Your task to perform on an android device: open chrome privacy settings Image 0: 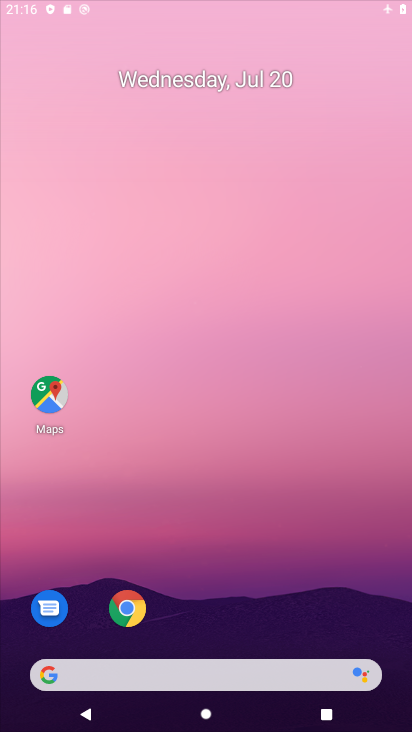
Step 0: drag from (229, 311) to (229, 114)
Your task to perform on an android device: open chrome privacy settings Image 1: 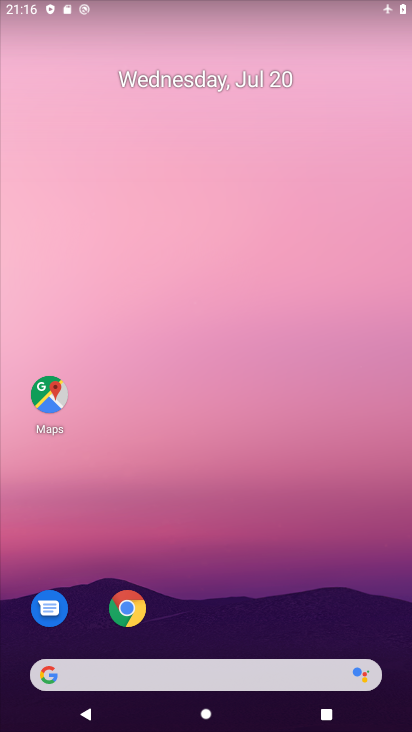
Step 1: drag from (197, 628) to (169, 228)
Your task to perform on an android device: open chrome privacy settings Image 2: 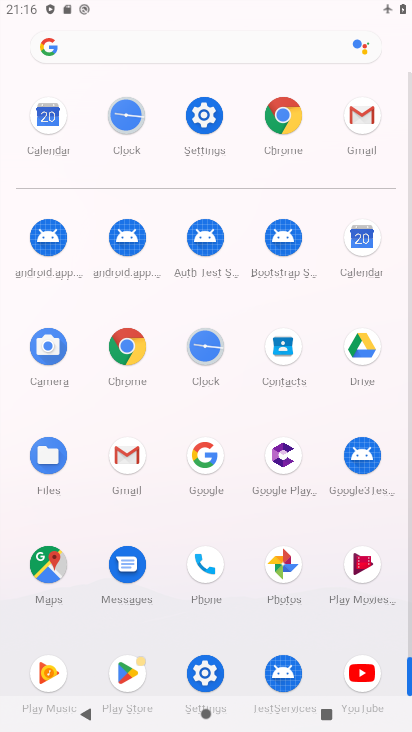
Step 2: click (205, 118)
Your task to perform on an android device: open chrome privacy settings Image 3: 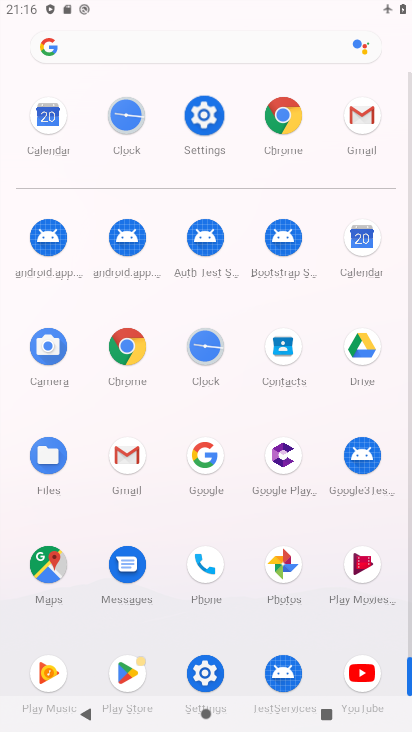
Step 3: click (205, 118)
Your task to perform on an android device: open chrome privacy settings Image 4: 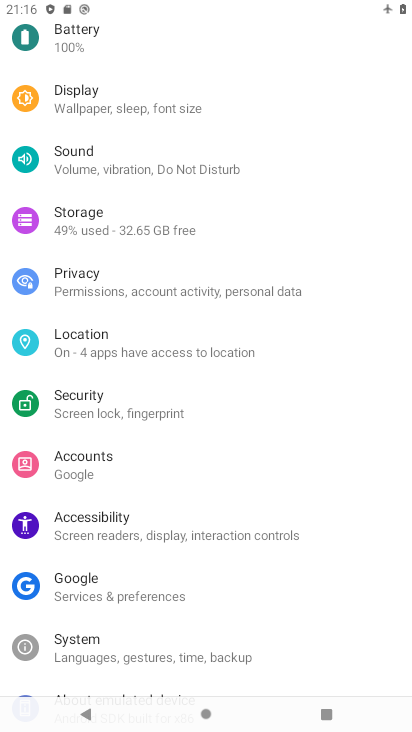
Step 4: click (83, 281)
Your task to perform on an android device: open chrome privacy settings Image 5: 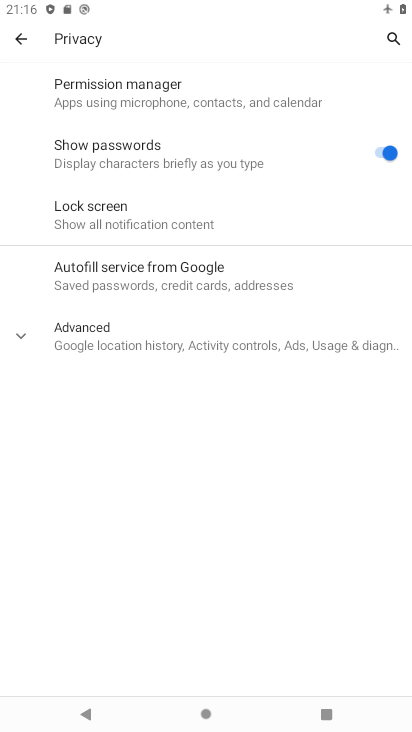
Step 5: click (27, 48)
Your task to perform on an android device: open chrome privacy settings Image 6: 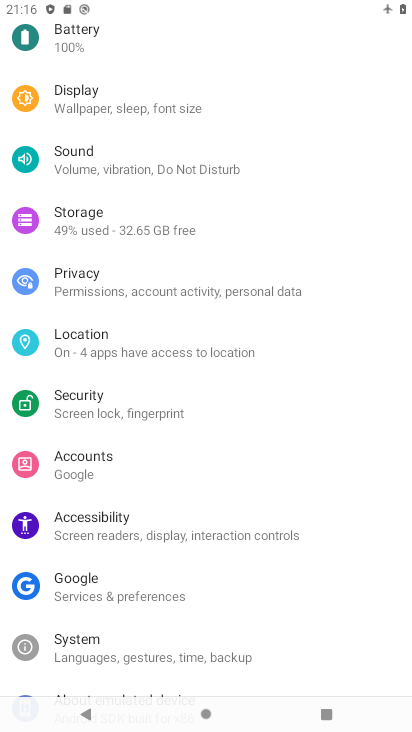
Step 6: press back button
Your task to perform on an android device: open chrome privacy settings Image 7: 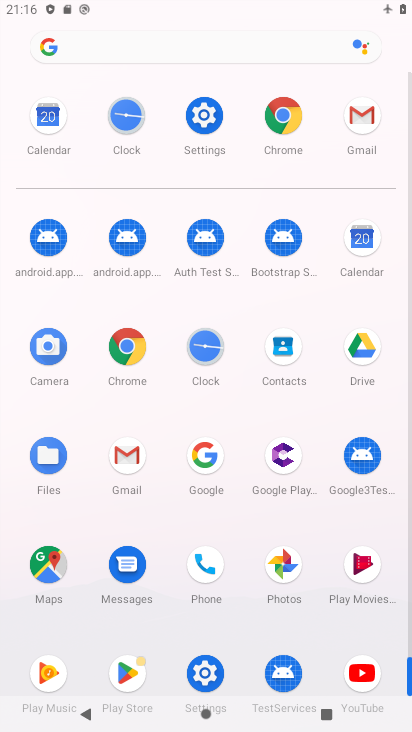
Step 7: click (281, 127)
Your task to perform on an android device: open chrome privacy settings Image 8: 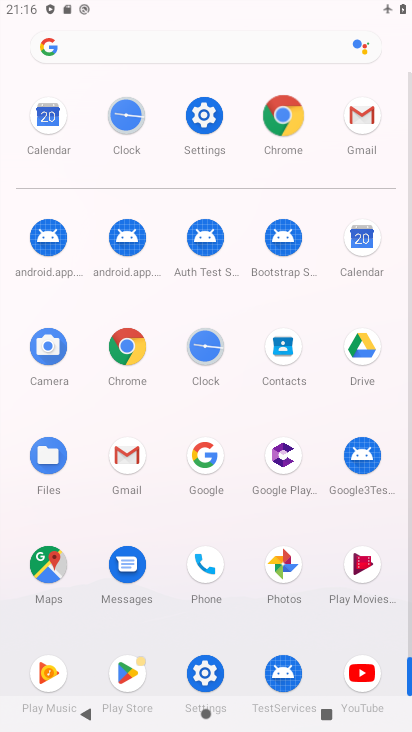
Step 8: click (280, 126)
Your task to perform on an android device: open chrome privacy settings Image 9: 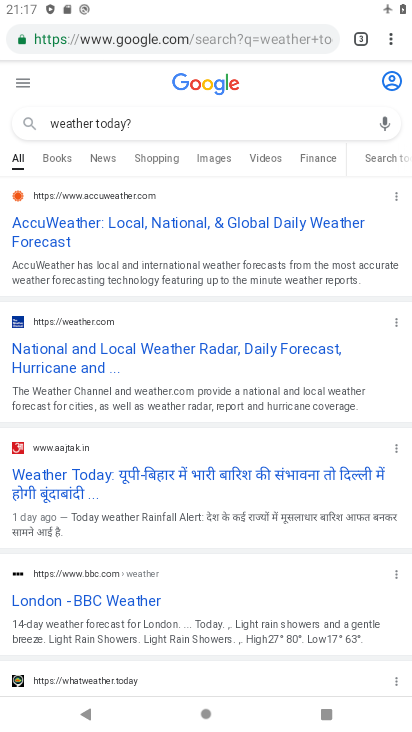
Step 9: drag from (384, 41) to (264, 431)
Your task to perform on an android device: open chrome privacy settings Image 10: 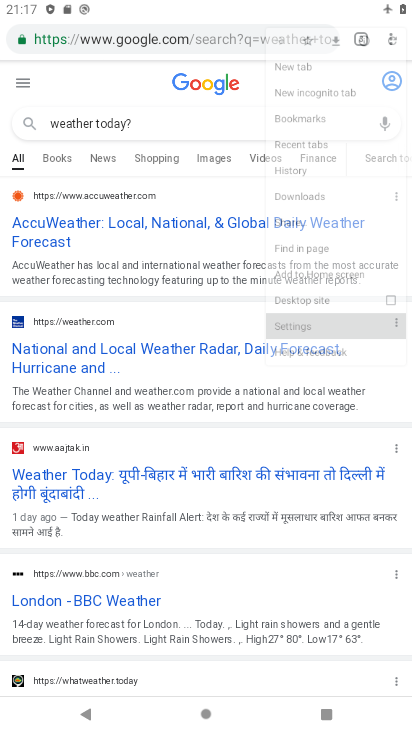
Step 10: click (268, 437)
Your task to perform on an android device: open chrome privacy settings Image 11: 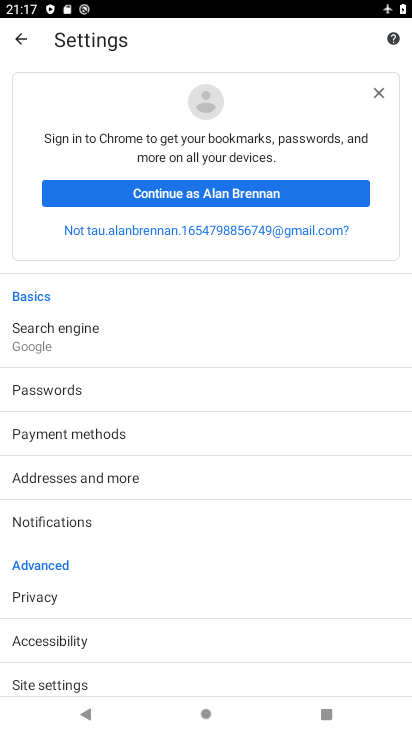
Step 11: click (27, 591)
Your task to perform on an android device: open chrome privacy settings Image 12: 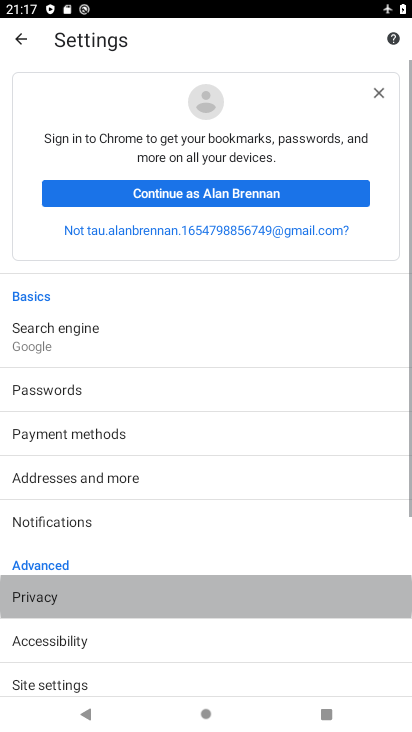
Step 12: click (27, 593)
Your task to perform on an android device: open chrome privacy settings Image 13: 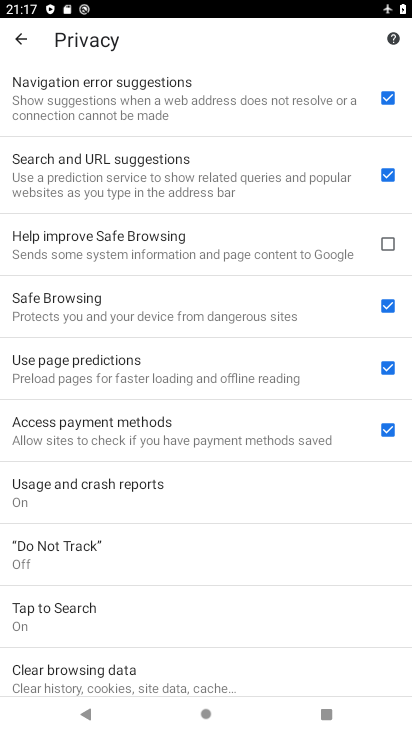
Step 13: task complete